Your task to perform on an android device: turn off sleep mode Image 0: 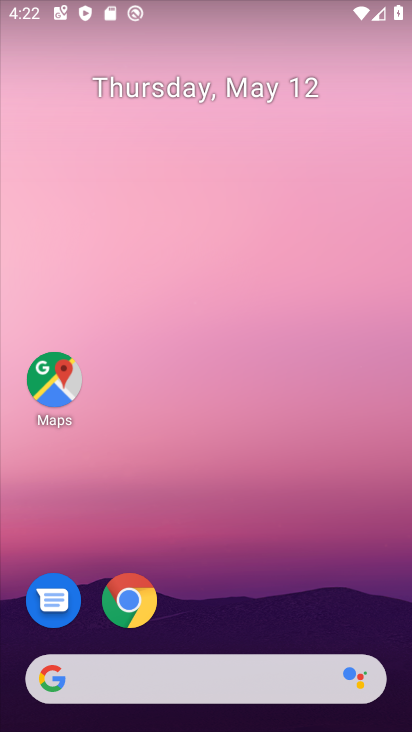
Step 0: drag from (160, 636) to (257, 212)
Your task to perform on an android device: turn off sleep mode Image 1: 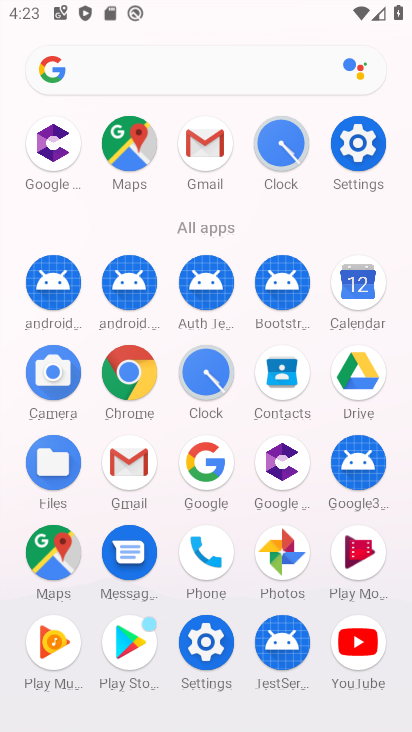
Step 1: click (214, 638)
Your task to perform on an android device: turn off sleep mode Image 2: 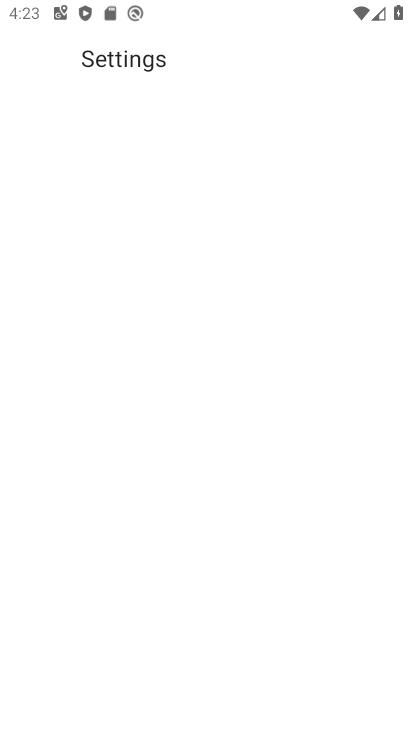
Step 2: click (214, 638)
Your task to perform on an android device: turn off sleep mode Image 3: 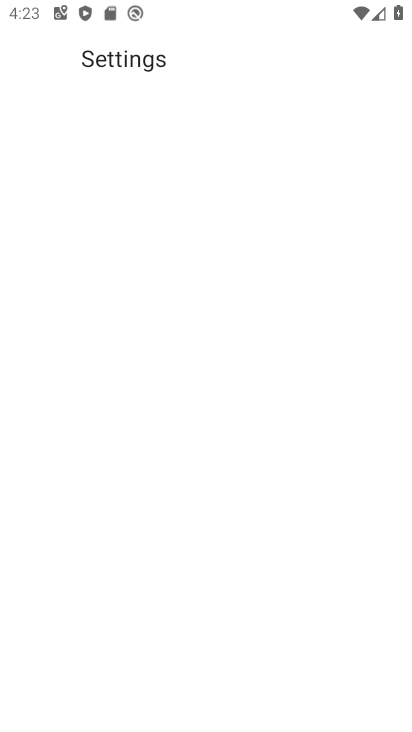
Step 3: click (366, 152)
Your task to perform on an android device: turn off sleep mode Image 4: 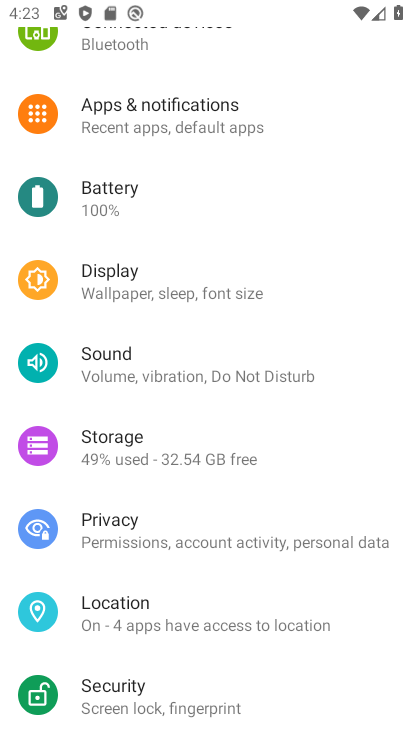
Step 4: click (133, 272)
Your task to perform on an android device: turn off sleep mode Image 5: 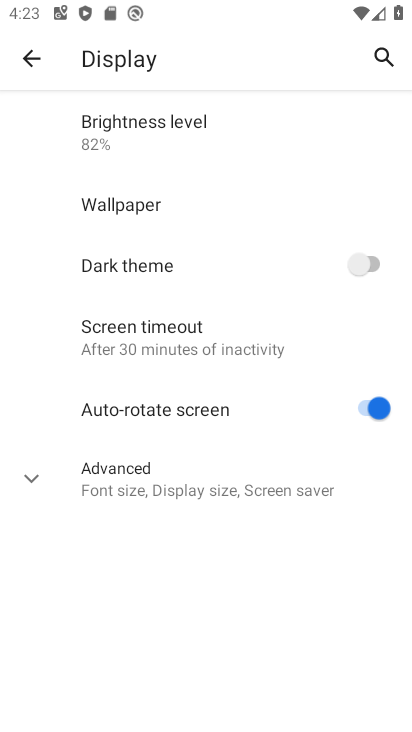
Step 5: click (221, 339)
Your task to perform on an android device: turn off sleep mode Image 6: 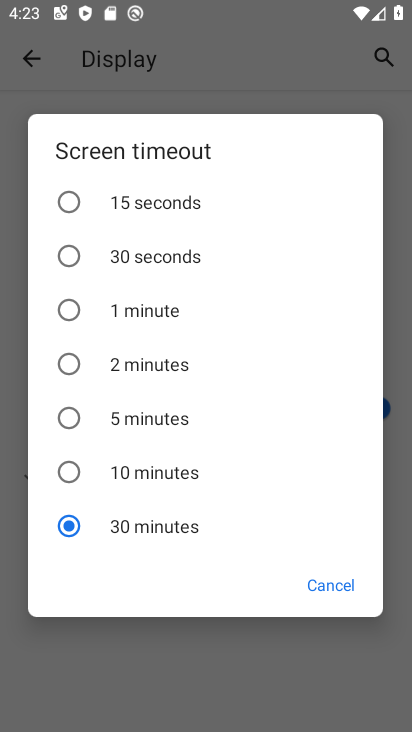
Step 6: task complete